Your task to perform on an android device: toggle notification dots Image 0: 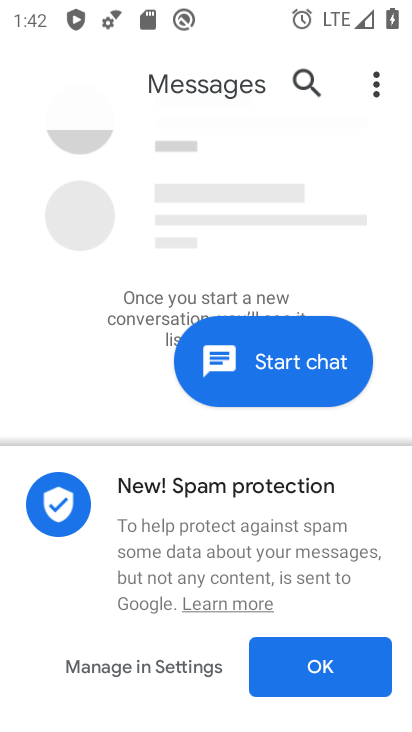
Step 0: press home button
Your task to perform on an android device: toggle notification dots Image 1: 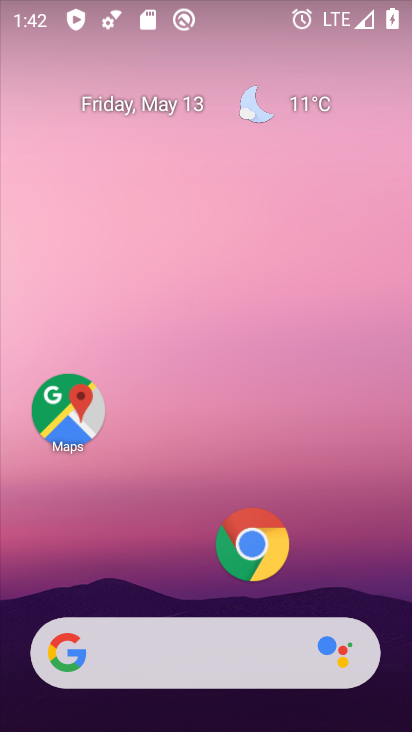
Step 1: drag from (128, 598) to (95, 139)
Your task to perform on an android device: toggle notification dots Image 2: 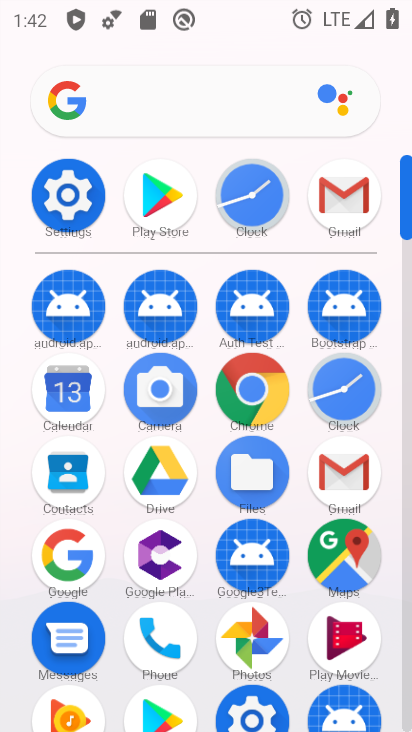
Step 2: click (68, 198)
Your task to perform on an android device: toggle notification dots Image 3: 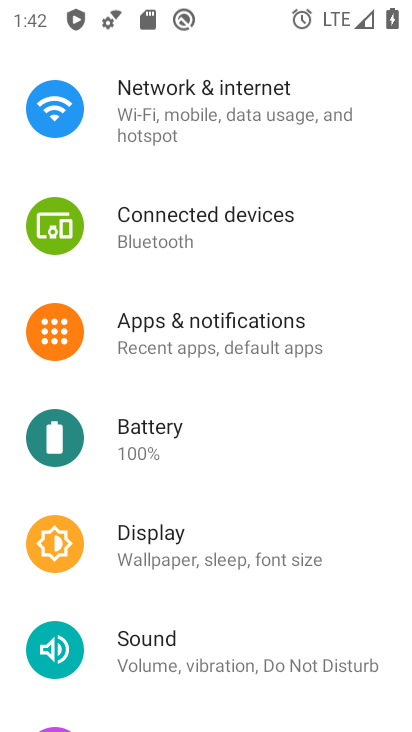
Step 3: click (250, 343)
Your task to perform on an android device: toggle notification dots Image 4: 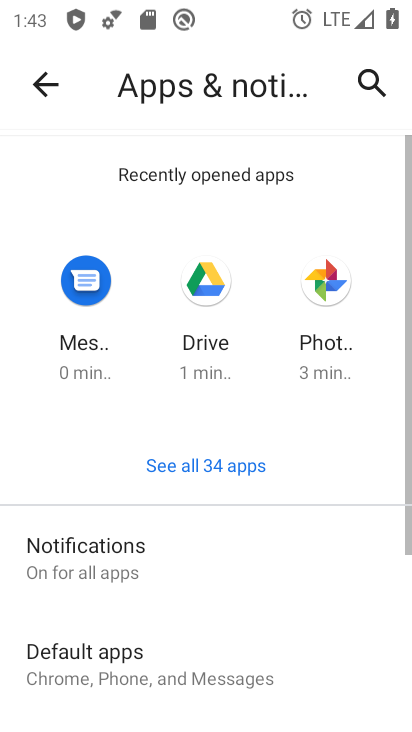
Step 4: click (163, 562)
Your task to perform on an android device: toggle notification dots Image 5: 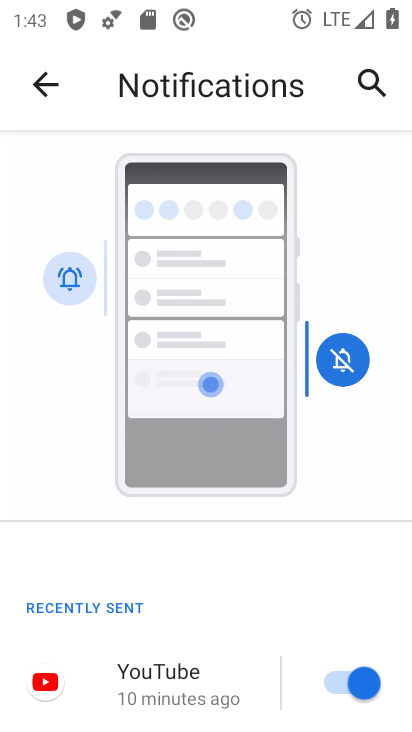
Step 5: drag from (174, 607) to (253, 252)
Your task to perform on an android device: toggle notification dots Image 6: 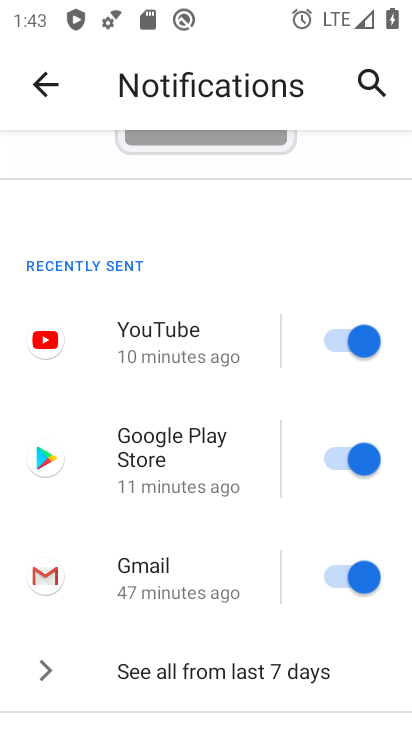
Step 6: drag from (204, 636) to (230, 360)
Your task to perform on an android device: toggle notification dots Image 7: 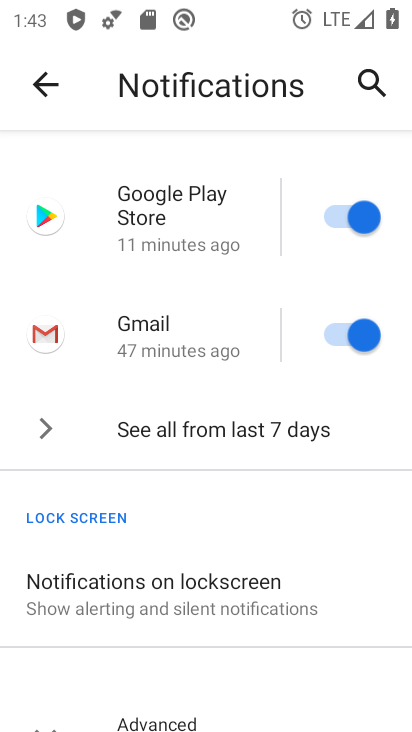
Step 7: drag from (130, 645) to (194, 351)
Your task to perform on an android device: toggle notification dots Image 8: 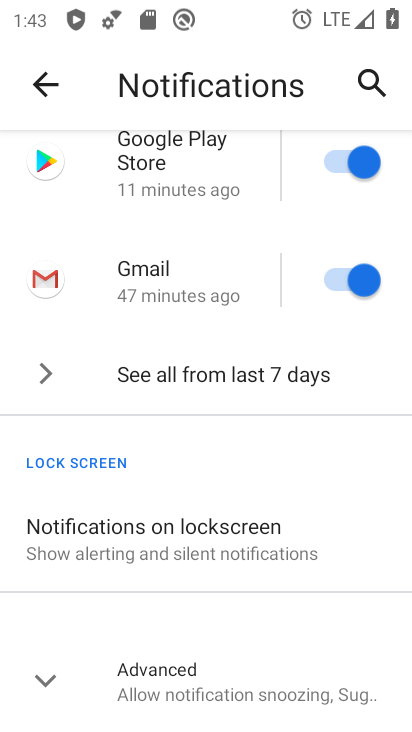
Step 8: click (43, 675)
Your task to perform on an android device: toggle notification dots Image 9: 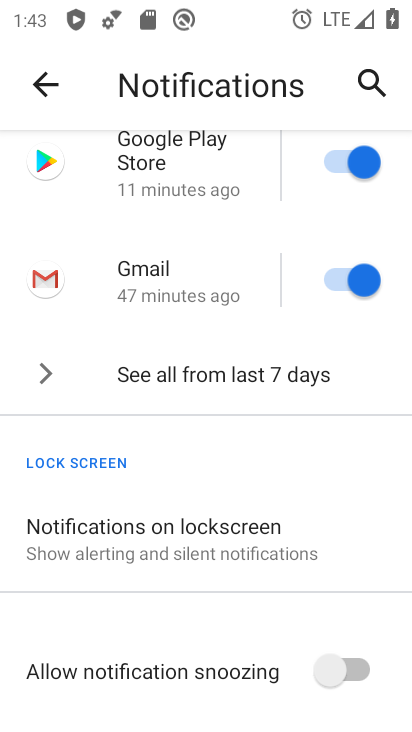
Step 9: drag from (211, 625) to (253, 160)
Your task to perform on an android device: toggle notification dots Image 10: 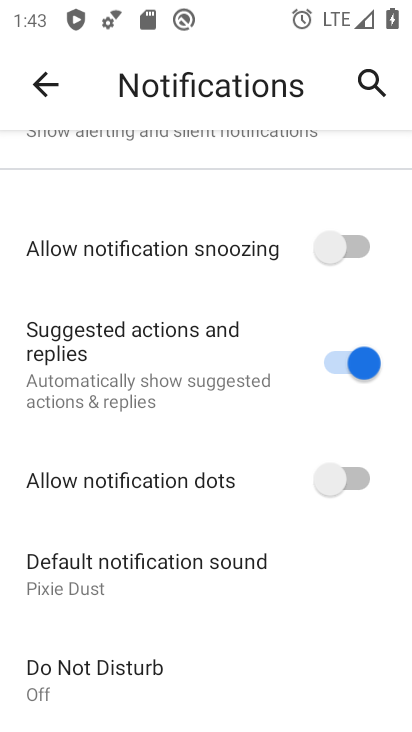
Step 10: click (337, 479)
Your task to perform on an android device: toggle notification dots Image 11: 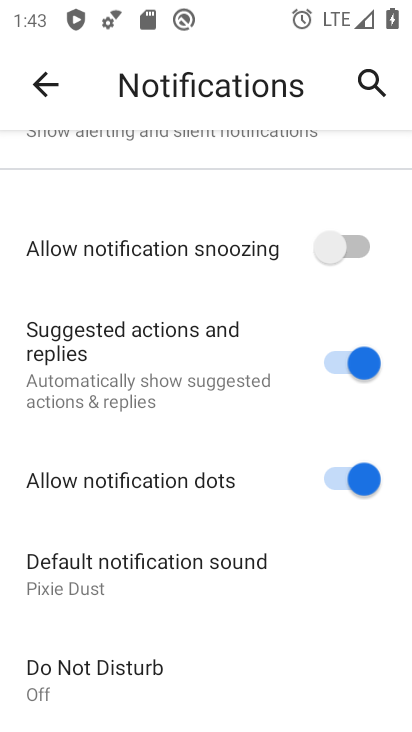
Step 11: task complete